Your task to perform on an android device: turn on sleep mode Image 0: 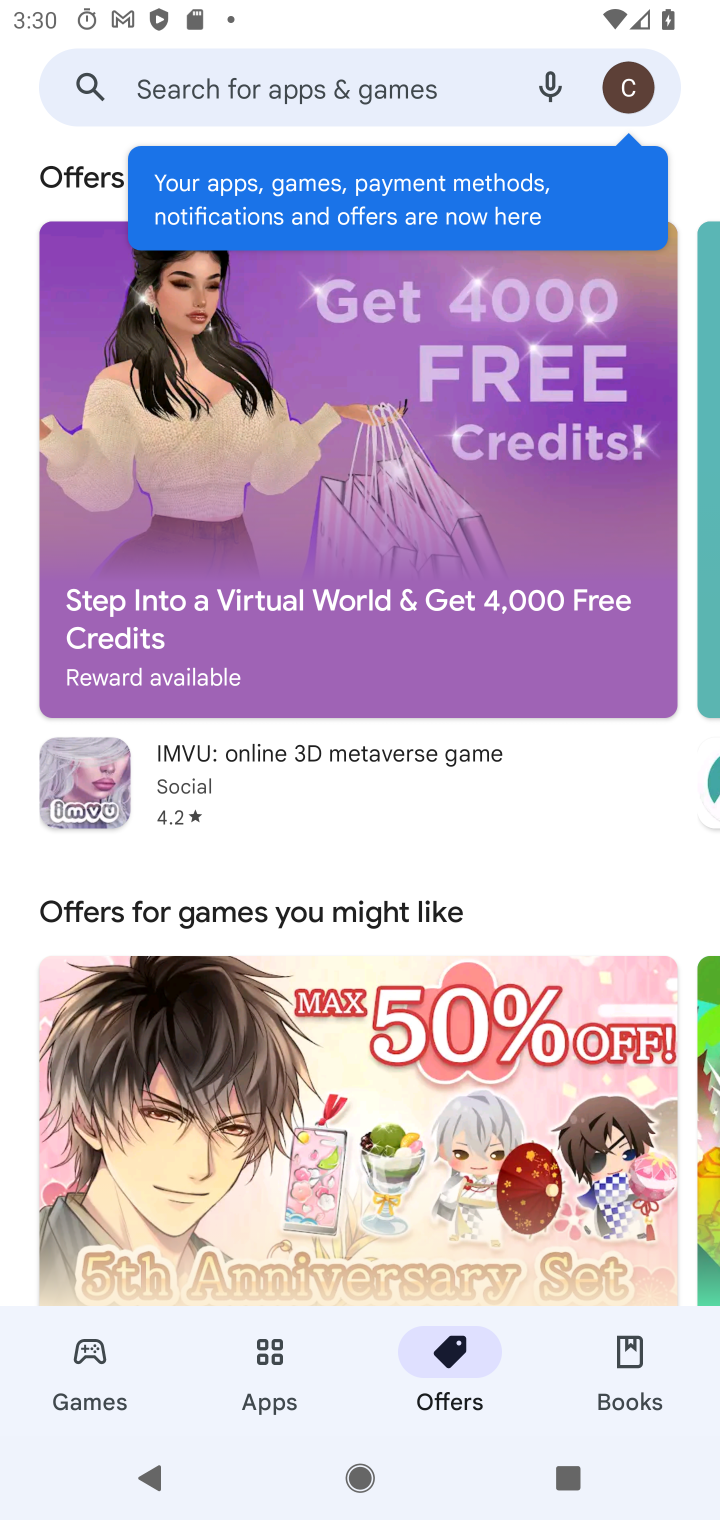
Step 0: press home button
Your task to perform on an android device: turn on sleep mode Image 1: 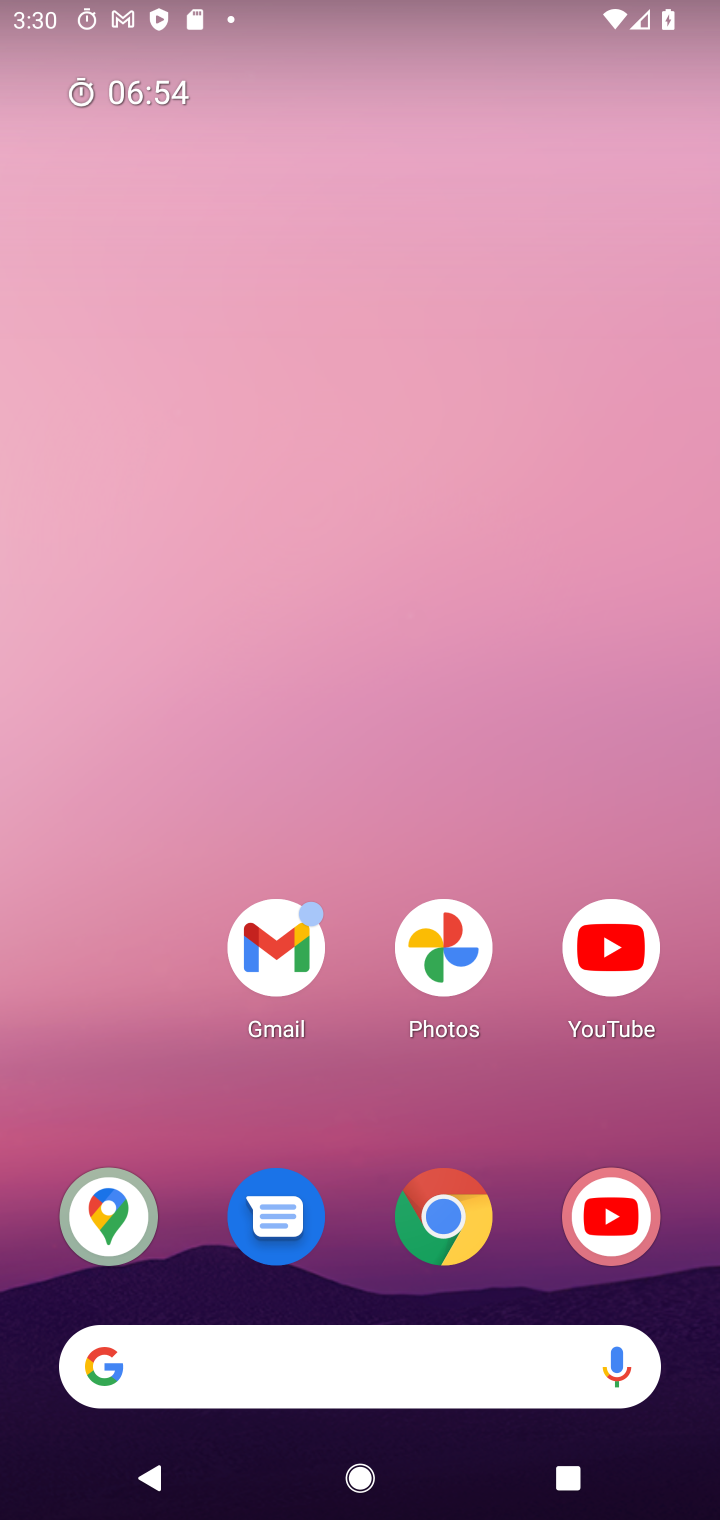
Step 1: drag from (130, 1212) to (587, 285)
Your task to perform on an android device: turn on sleep mode Image 2: 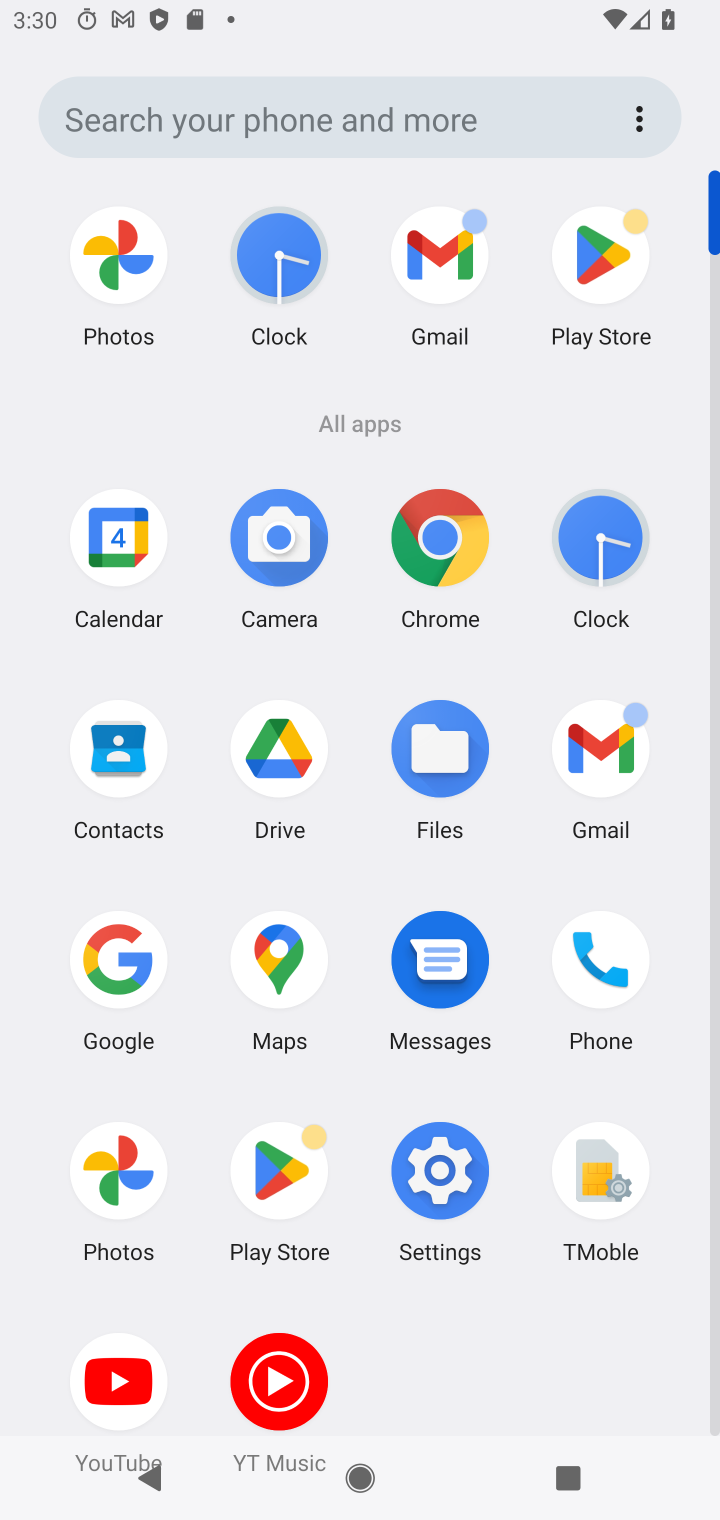
Step 2: click (451, 1176)
Your task to perform on an android device: turn on sleep mode Image 3: 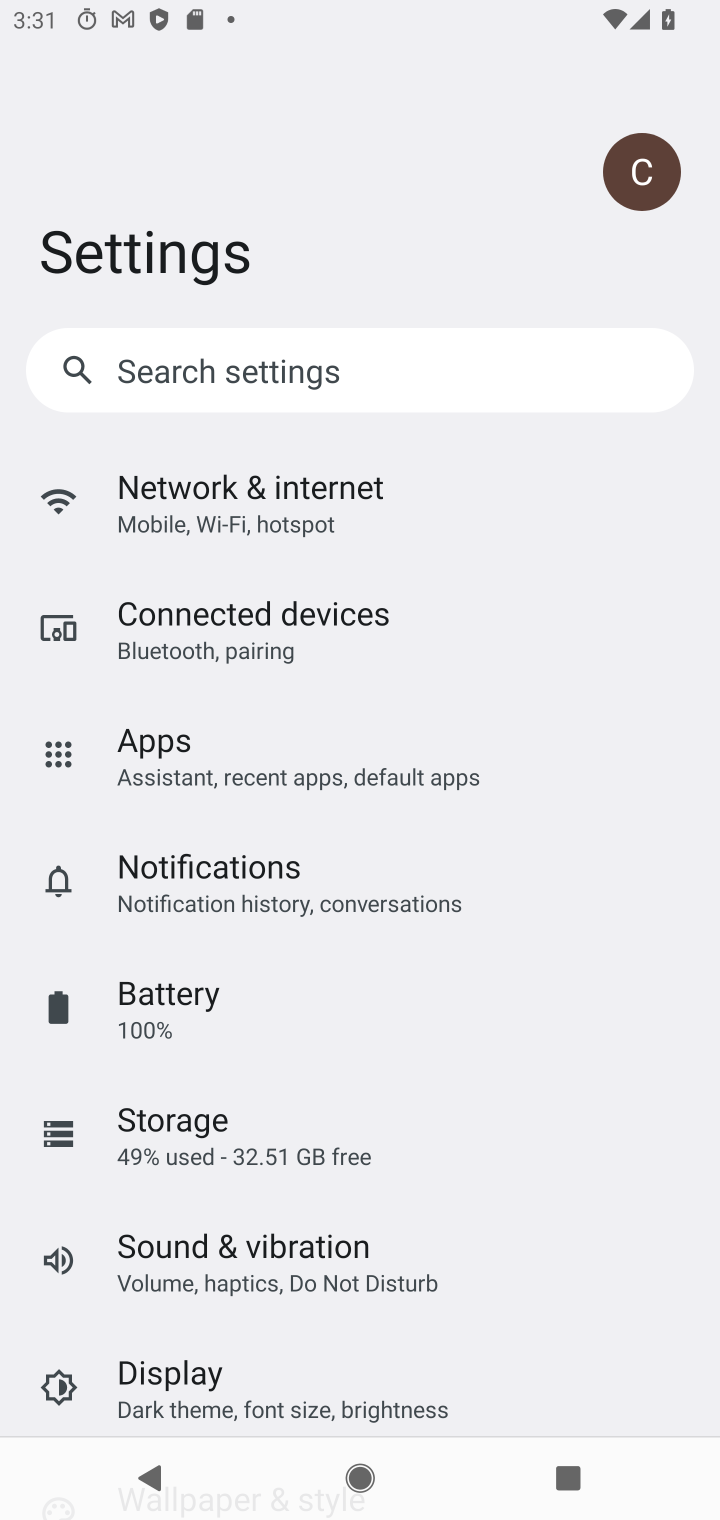
Step 3: task complete